Your task to perform on an android device: Open the map Image 0: 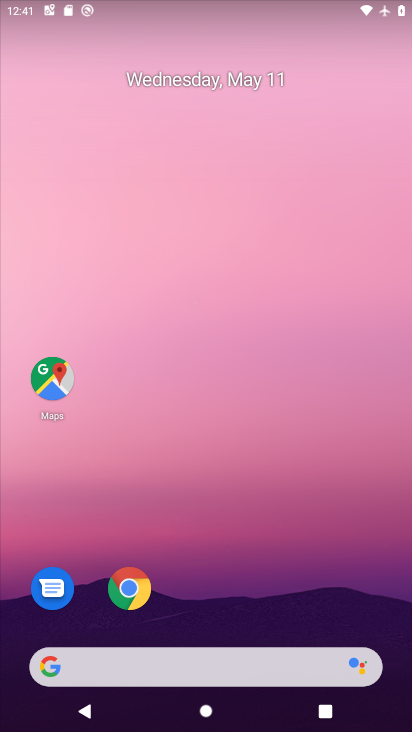
Step 0: click (50, 372)
Your task to perform on an android device: Open the map Image 1: 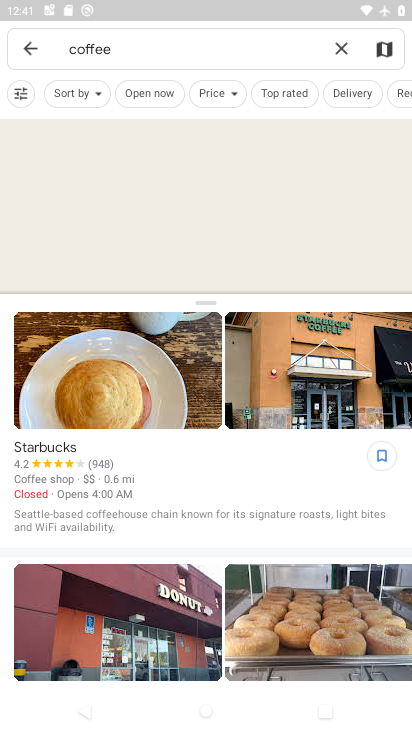
Step 1: click (344, 43)
Your task to perform on an android device: Open the map Image 2: 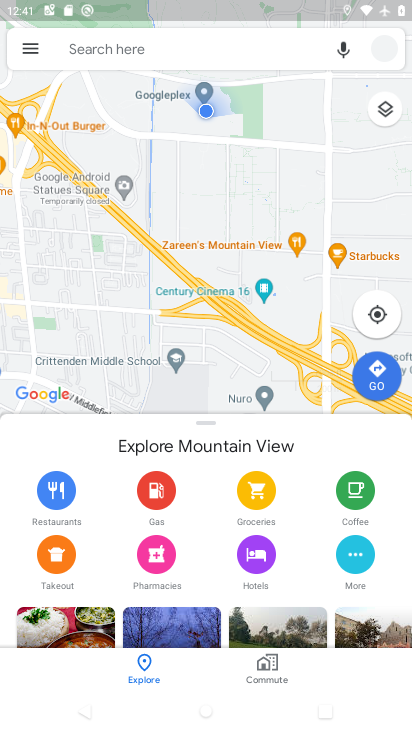
Step 2: task complete